Your task to perform on an android device: turn smart compose on in the gmail app Image 0: 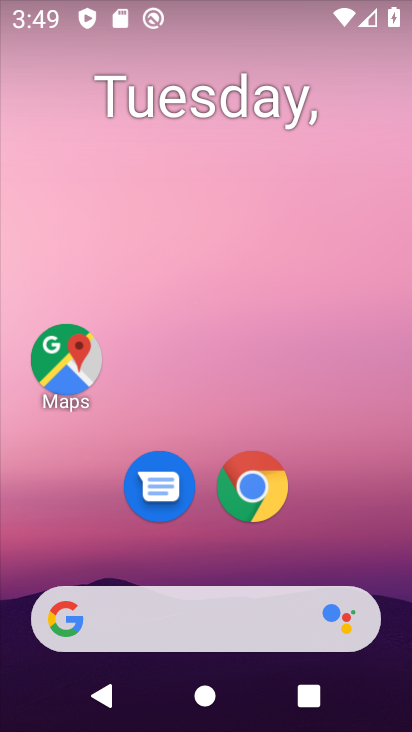
Step 0: drag from (309, 528) to (271, 256)
Your task to perform on an android device: turn smart compose on in the gmail app Image 1: 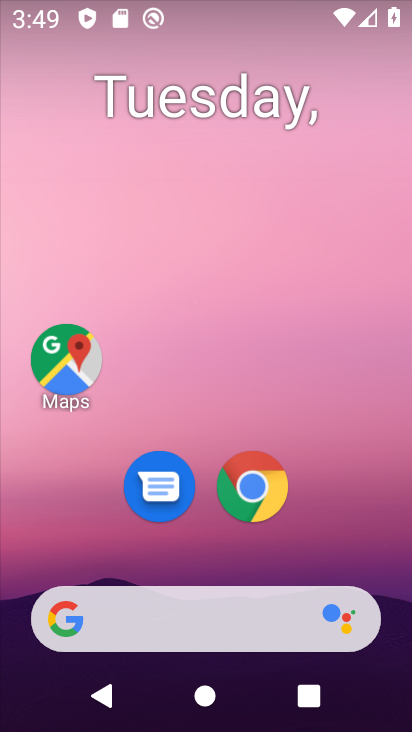
Step 1: drag from (315, 542) to (301, 222)
Your task to perform on an android device: turn smart compose on in the gmail app Image 2: 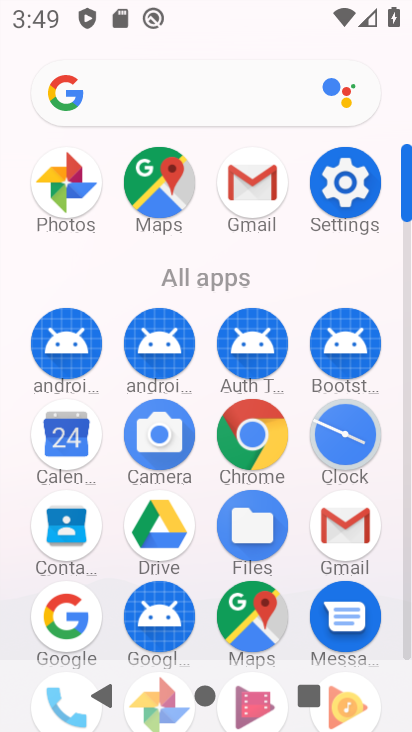
Step 2: click (254, 188)
Your task to perform on an android device: turn smart compose on in the gmail app Image 3: 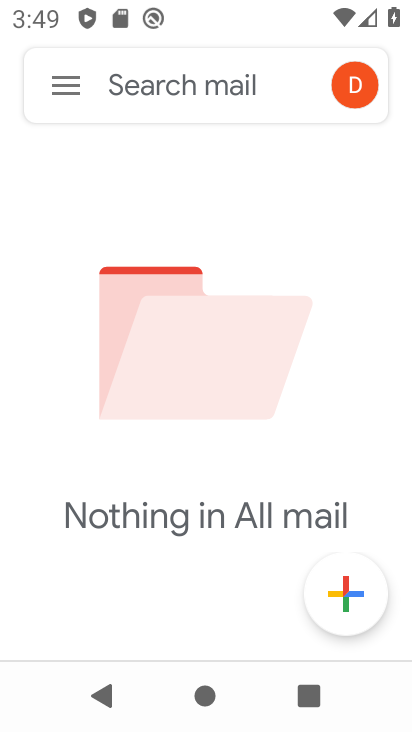
Step 3: click (69, 99)
Your task to perform on an android device: turn smart compose on in the gmail app Image 4: 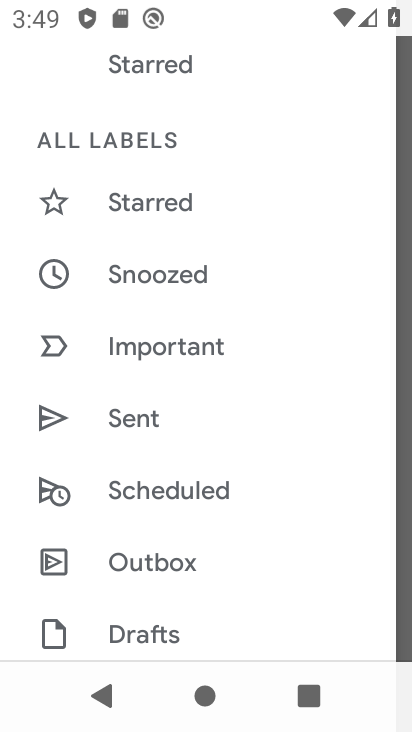
Step 4: drag from (228, 476) to (247, 187)
Your task to perform on an android device: turn smart compose on in the gmail app Image 5: 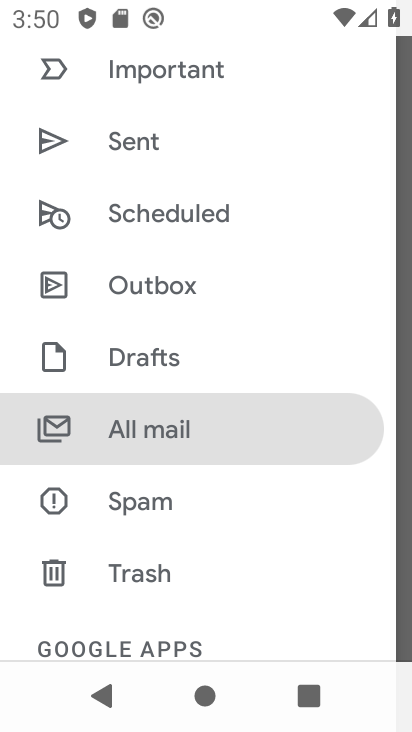
Step 5: drag from (195, 573) to (188, 258)
Your task to perform on an android device: turn smart compose on in the gmail app Image 6: 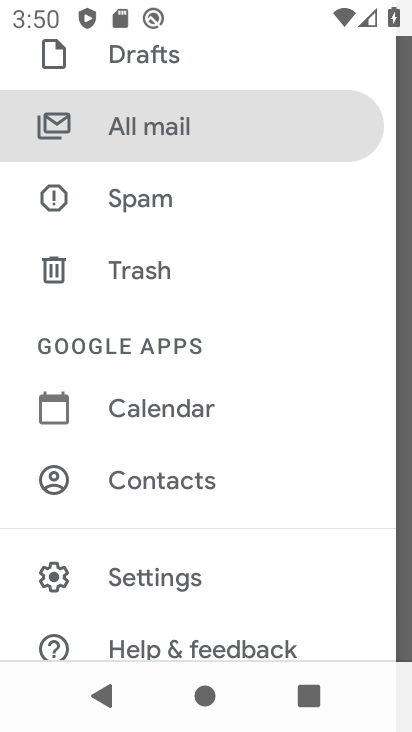
Step 6: drag from (199, 192) to (209, 509)
Your task to perform on an android device: turn smart compose on in the gmail app Image 7: 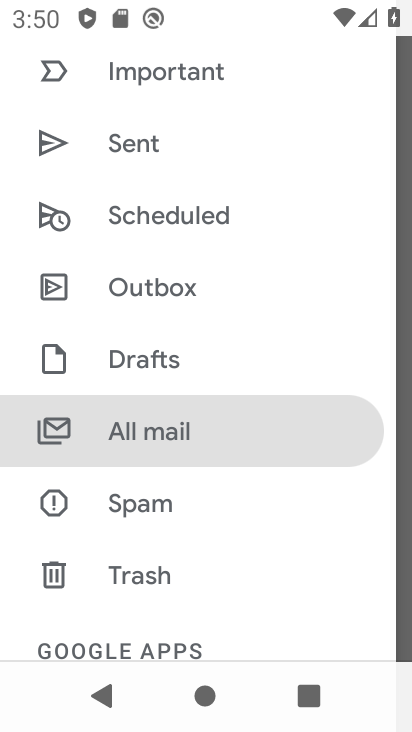
Step 7: drag from (204, 176) to (246, 412)
Your task to perform on an android device: turn smart compose on in the gmail app Image 8: 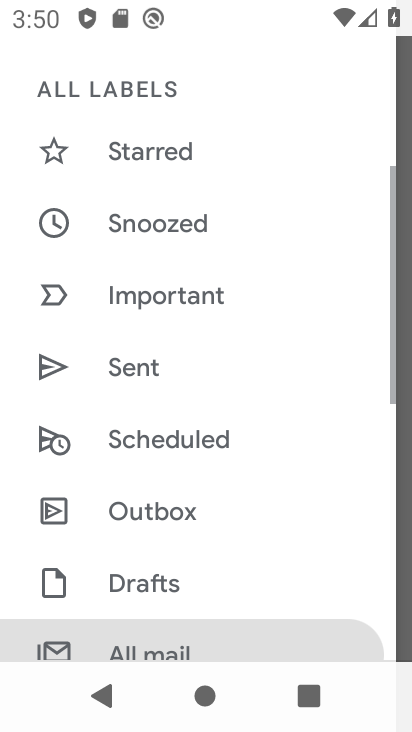
Step 8: drag from (233, 231) to (242, 312)
Your task to perform on an android device: turn smart compose on in the gmail app Image 9: 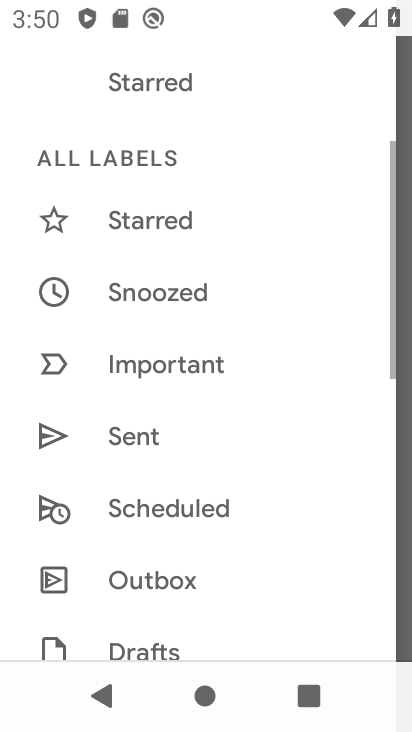
Step 9: drag from (193, 128) to (226, 458)
Your task to perform on an android device: turn smart compose on in the gmail app Image 10: 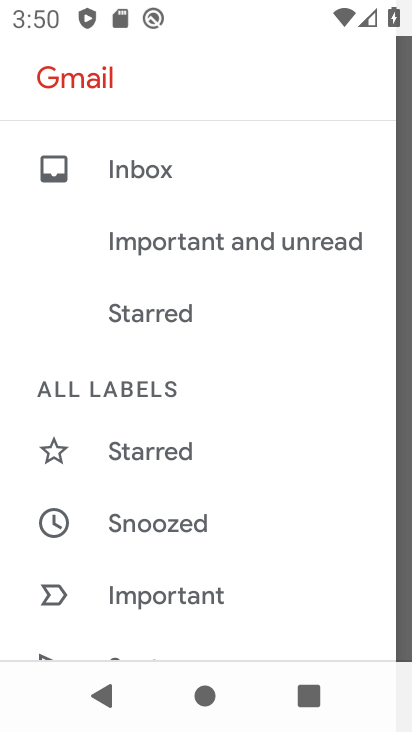
Step 10: drag from (203, 415) to (234, 184)
Your task to perform on an android device: turn smart compose on in the gmail app Image 11: 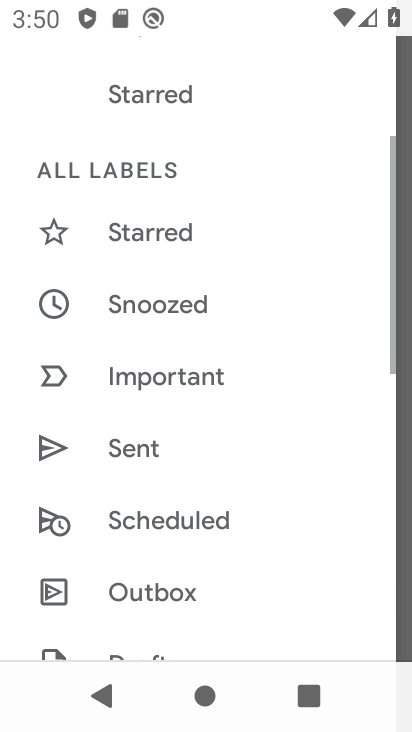
Step 11: drag from (254, 94) to (271, 516)
Your task to perform on an android device: turn smart compose on in the gmail app Image 12: 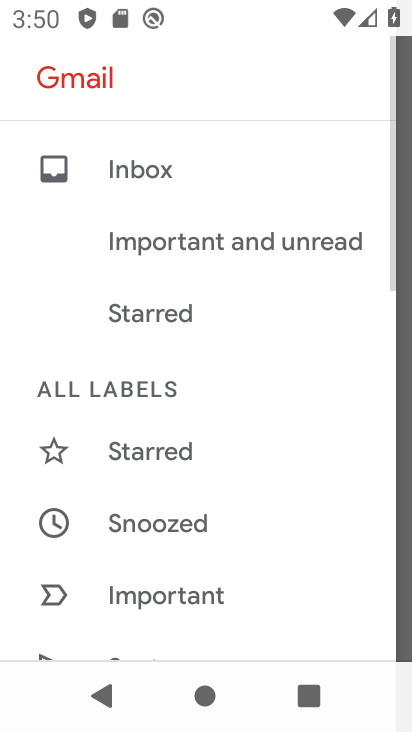
Step 12: click (148, 168)
Your task to perform on an android device: turn smart compose on in the gmail app Image 13: 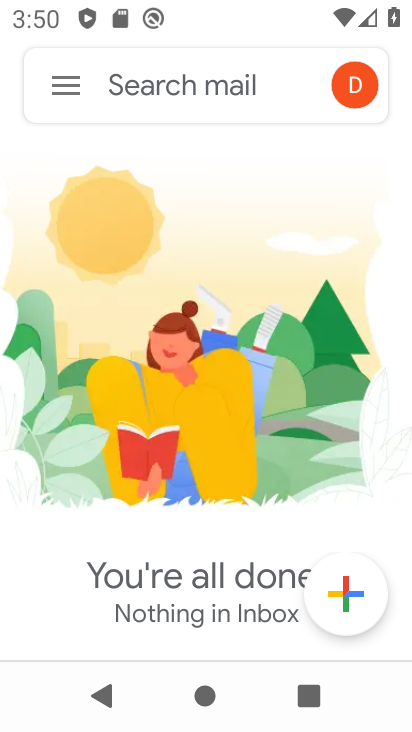
Step 13: task complete